Your task to perform on an android device: Go to sound settings Image 0: 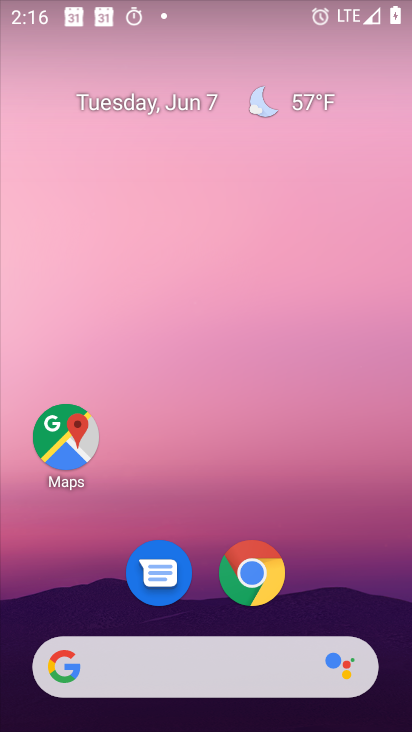
Step 0: drag from (333, 599) to (312, 4)
Your task to perform on an android device: Go to sound settings Image 1: 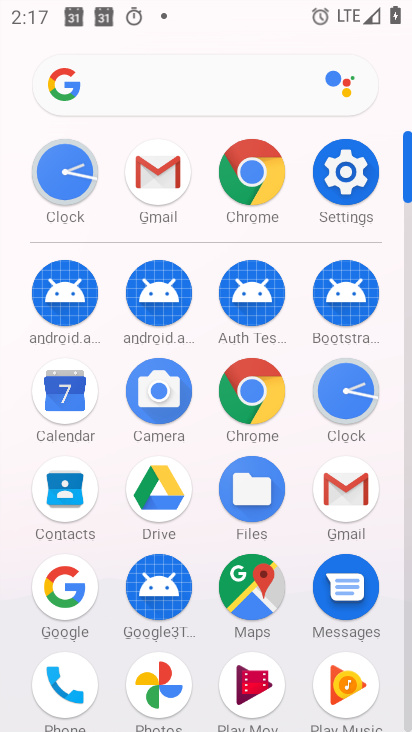
Step 1: click (335, 200)
Your task to perform on an android device: Go to sound settings Image 2: 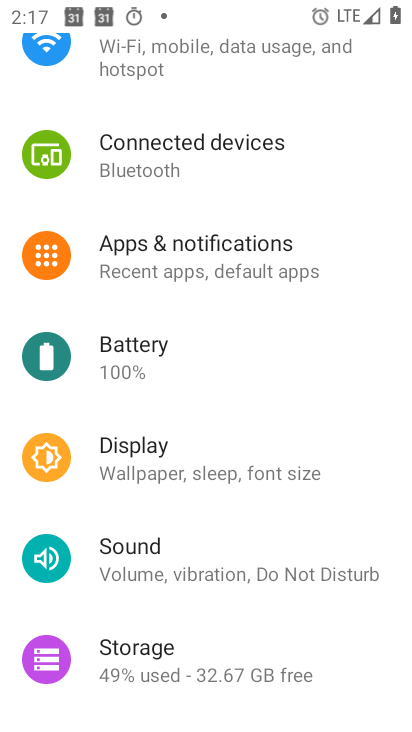
Step 2: click (167, 555)
Your task to perform on an android device: Go to sound settings Image 3: 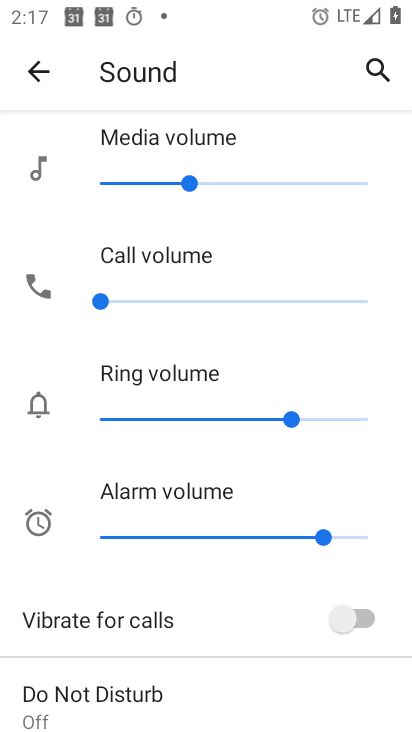
Step 3: task complete